Your task to perform on an android device: When is my next meeting? Image 0: 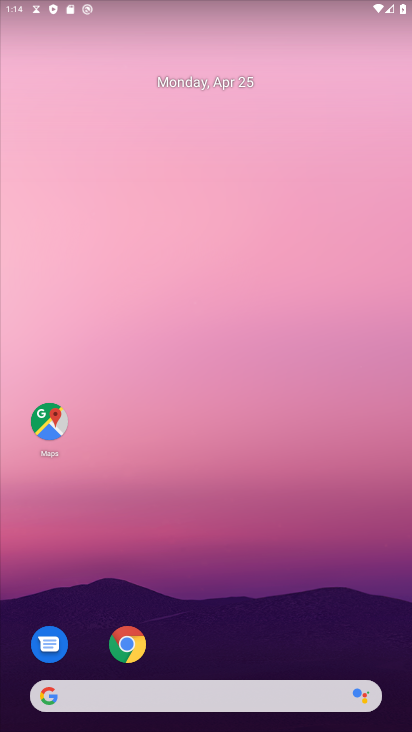
Step 0: drag from (369, 475) to (373, 8)
Your task to perform on an android device: When is my next meeting? Image 1: 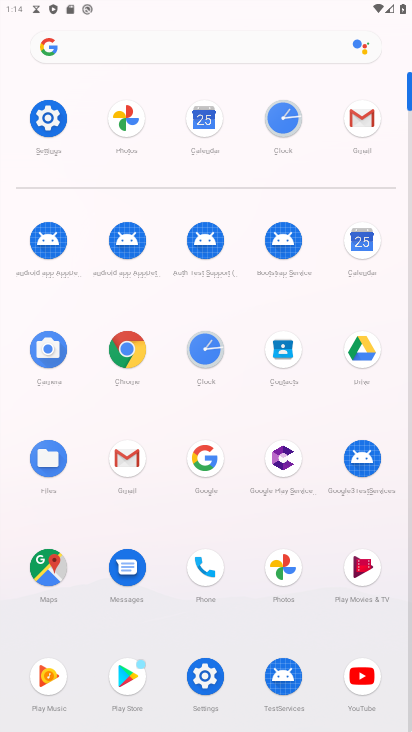
Step 1: click (364, 237)
Your task to perform on an android device: When is my next meeting? Image 2: 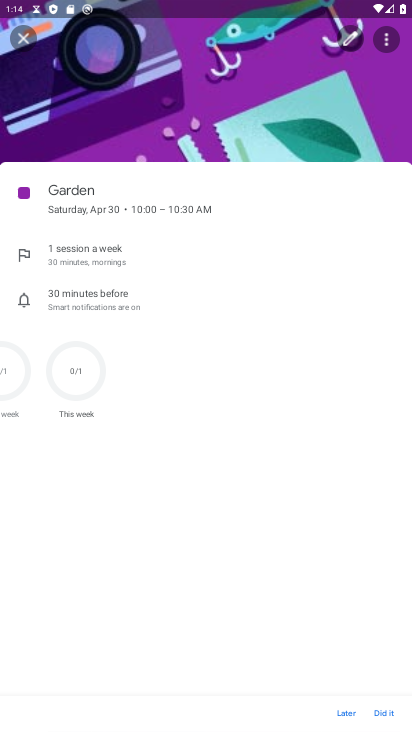
Step 2: click (29, 41)
Your task to perform on an android device: When is my next meeting? Image 3: 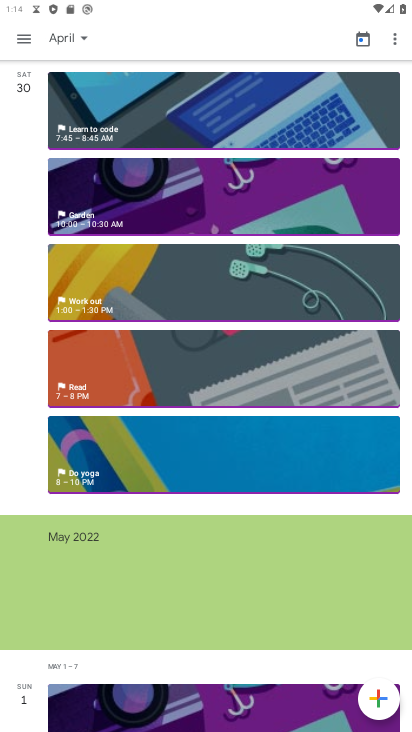
Step 3: click (86, 39)
Your task to perform on an android device: When is my next meeting? Image 4: 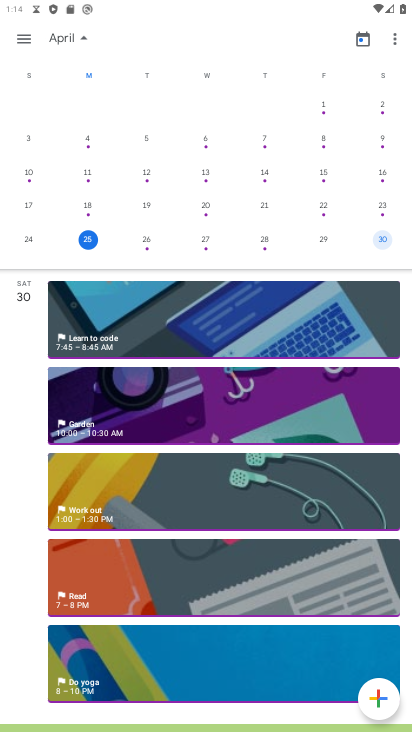
Step 4: click (147, 244)
Your task to perform on an android device: When is my next meeting? Image 5: 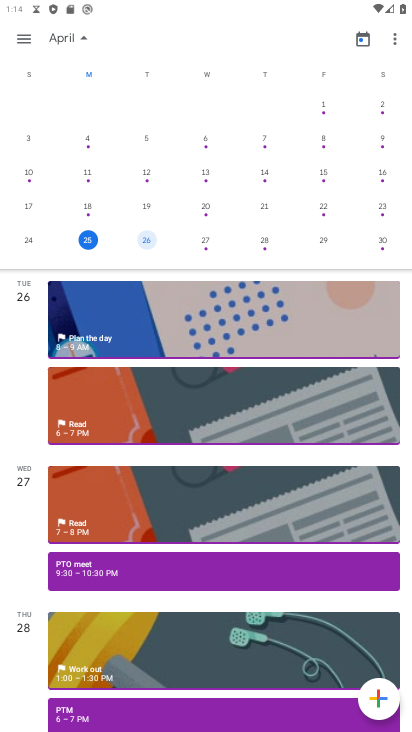
Step 5: click (152, 413)
Your task to perform on an android device: When is my next meeting? Image 6: 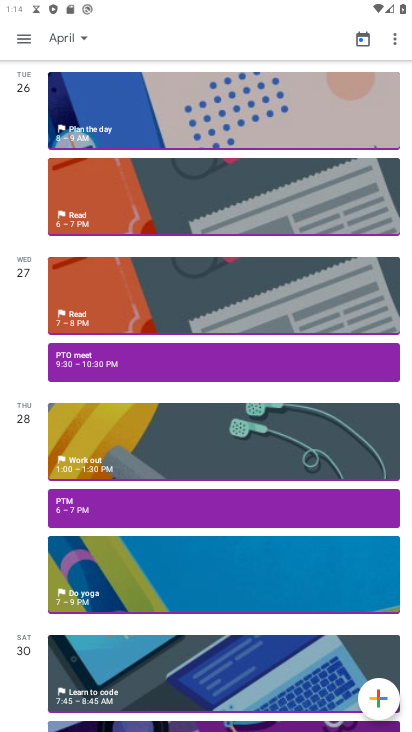
Step 6: click (120, 357)
Your task to perform on an android device: When is my next meeting? Image 7: 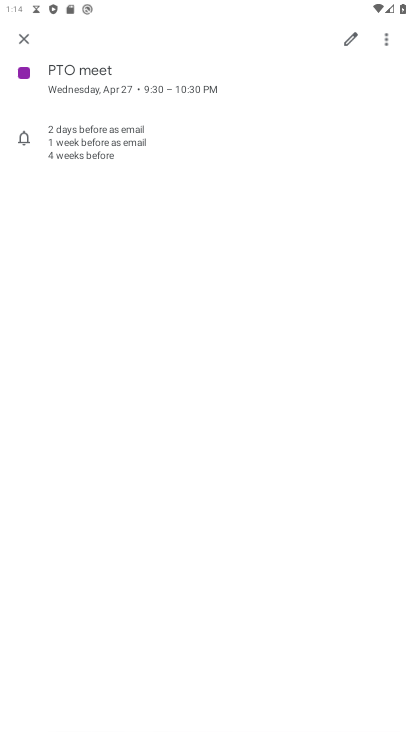
Step 7: task complete